Your task to perform on an android device: turn on location history Image 0: 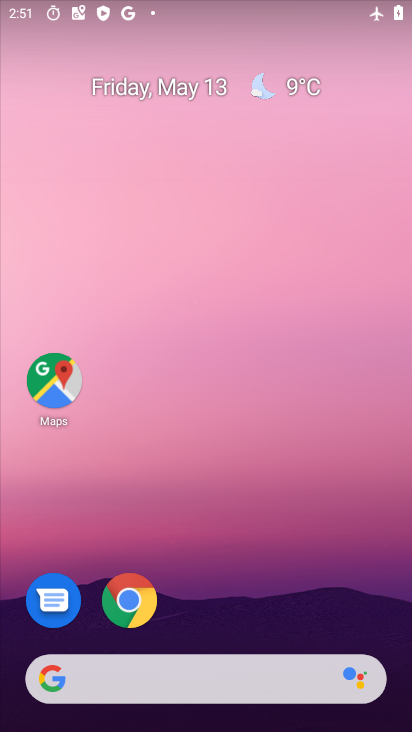
Step 0: drag from (199, 636) to (281, 186)
Your task to perform on an android device: turn on location history Image 1: 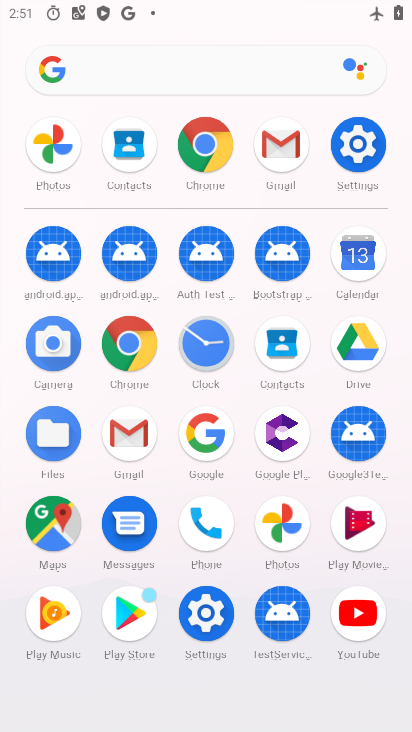
Step 1: click (208, 605)
Your task to perform on an android device: turn on location history Image 2: 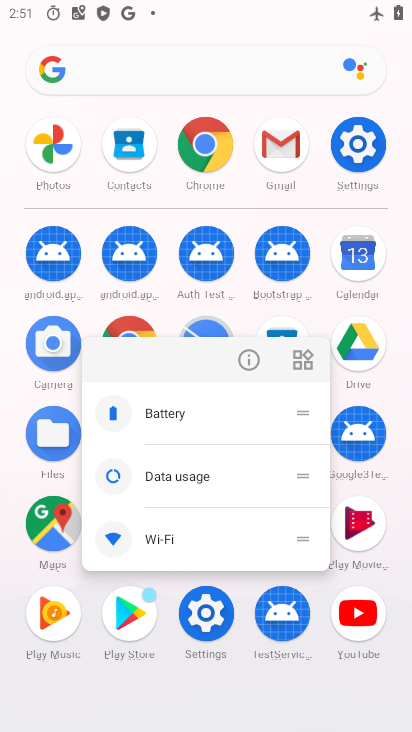
Step 2: click (251, 349)
Your task to perform on an android device: turn on location history Image 3: 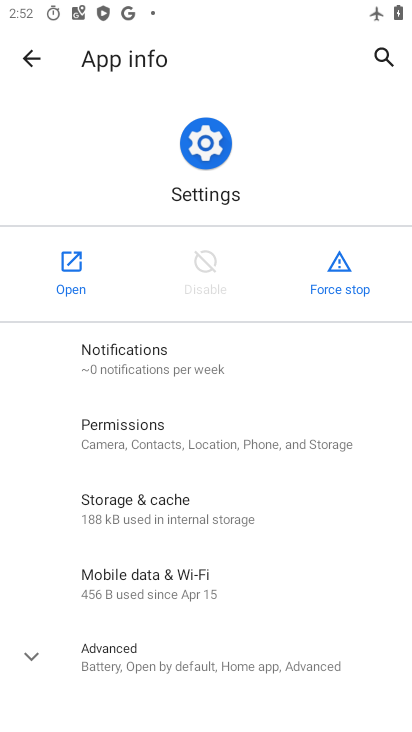
Step 3: click (85, 269)
Your task to perform on an android device: turn on location history Image 4: 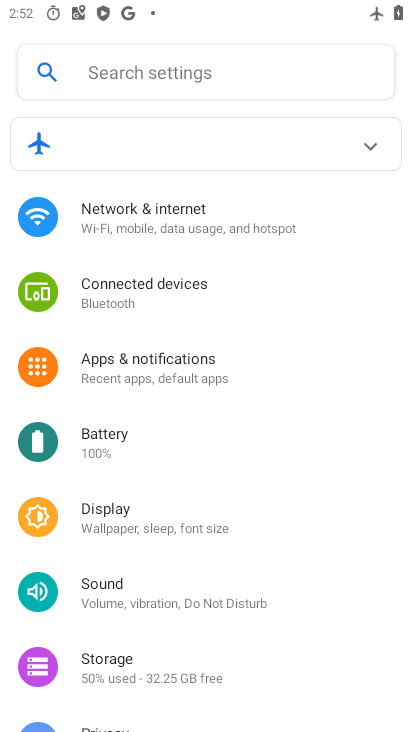
Step 4: drag from (191, 620) to (223, 340)
Your task to perform on an android device: turn on location history Image 5: 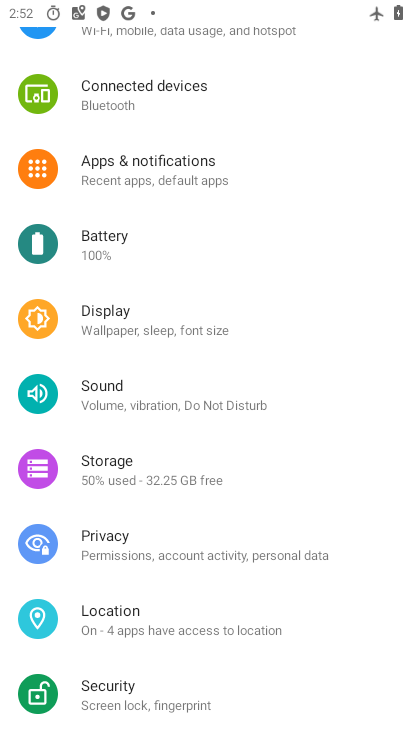
Step 5: click (146, 610)
Your task to perform on an android device: turn on location history Image 6: 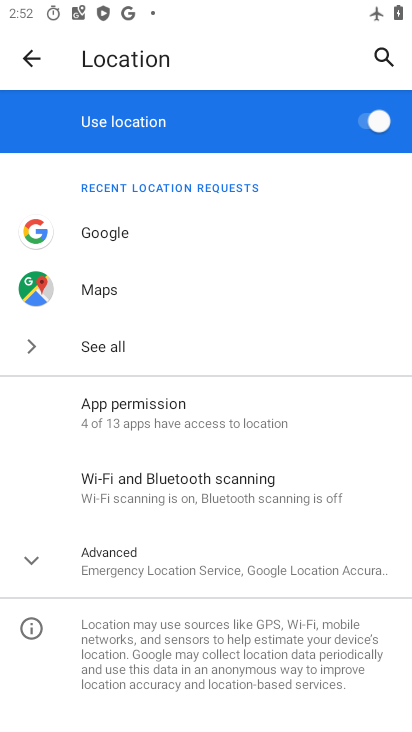
Step 6: click (165, 586)
Your task to perform on an android device: turn on location history Image 7: 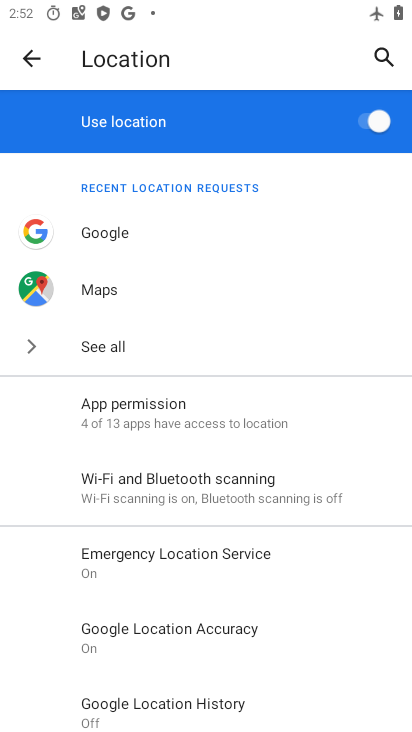
Step 7: drag from (240, 663) to (365, 212)
Your task to perform on an android device: turn on location history Image 8: 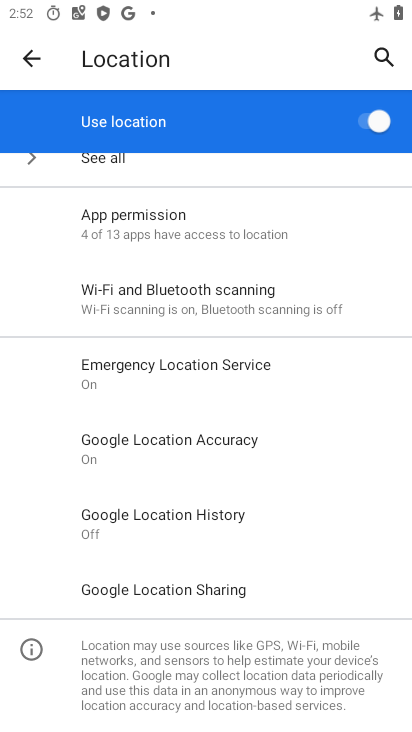
Step 8: click (222, 512)
Your task to perform on an android device: turn on location history Image 9: 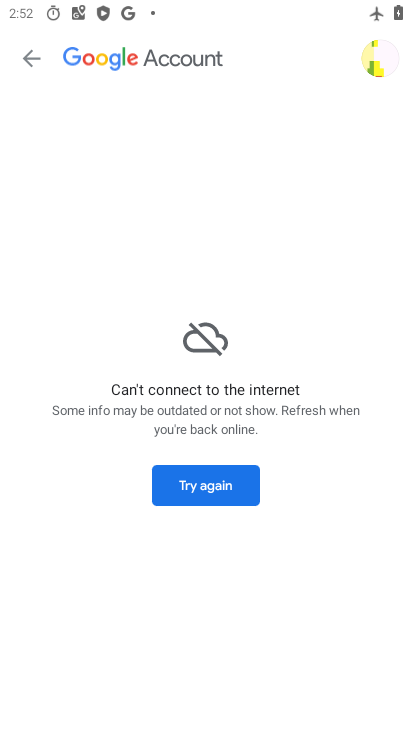
Step 9: click (240, 479)
Your task to perform on an android device: turn on location history Image 10: 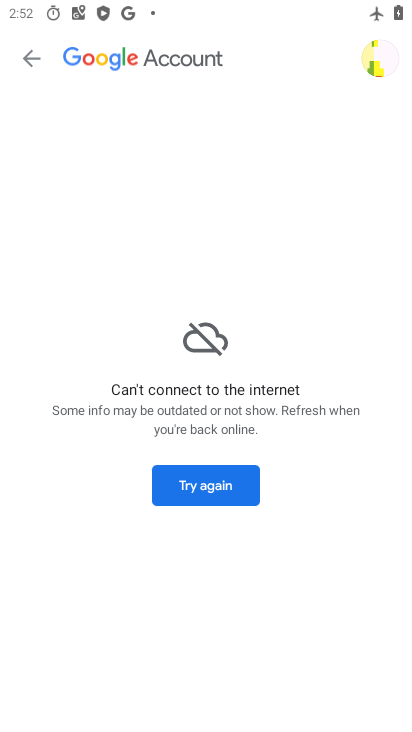
Step 10: drag from (266, 529) to (289, 305)
Your task to perform on an android device: turn on location history Image 11: 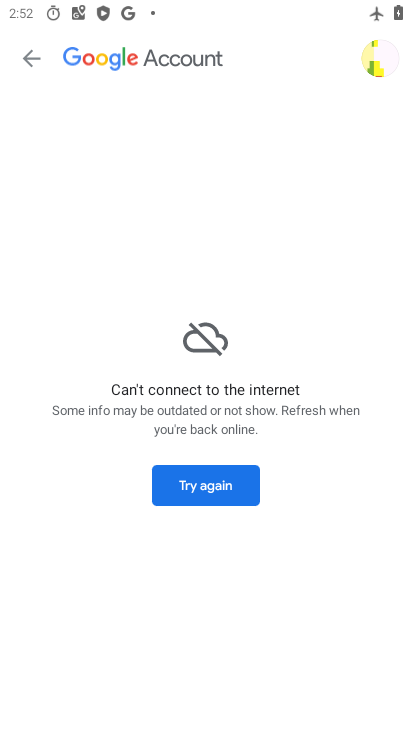
Step 11: click (296, 272)
Your task to perform on an android device: turn on location history Image 12: 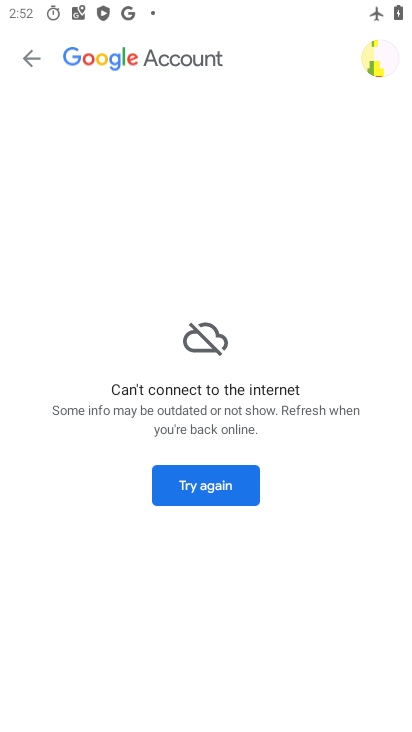
Step 12: click (136, 344)
Your task to perform on an android device: turn on location history Image 13: 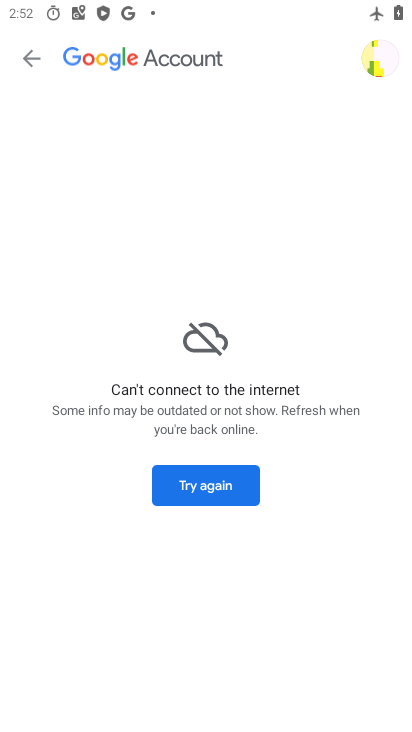
Step 13: click (197, 310)
Your task to perform on an android device: turn on location history Image 14: 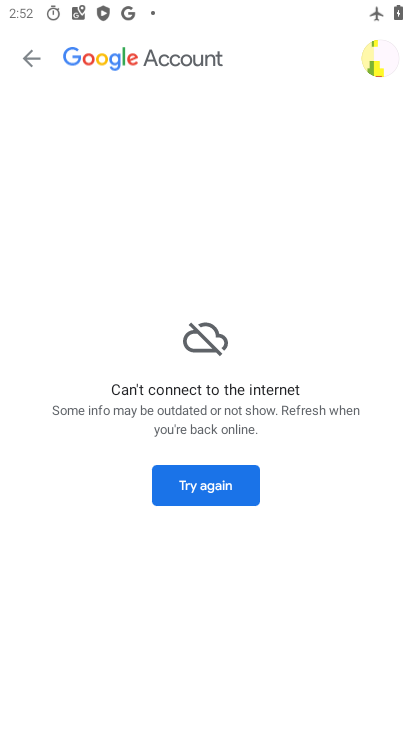
Step 14: click (197, 310)
Your task to perform on an android device: turn on location history Image 15: 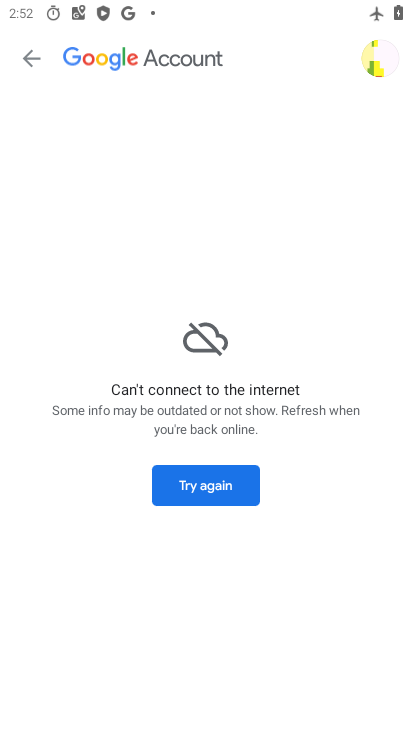
Step 15: click (197, 310)
Your task to perform on an android device: turn on location history Image 16: 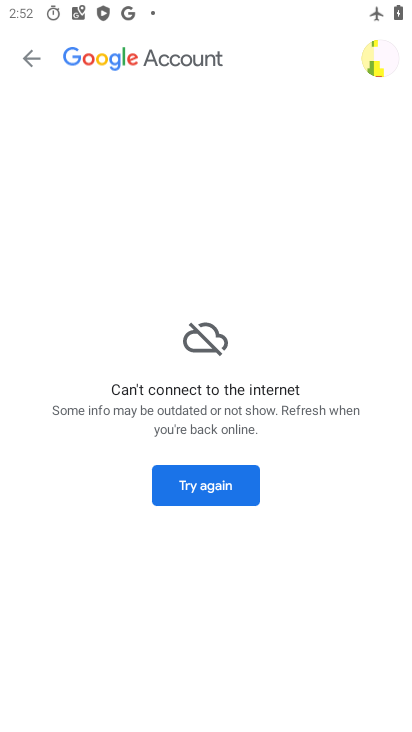
Step 16: click (205, 309)
Your task to perform on an android device: turn on location history Image 17: 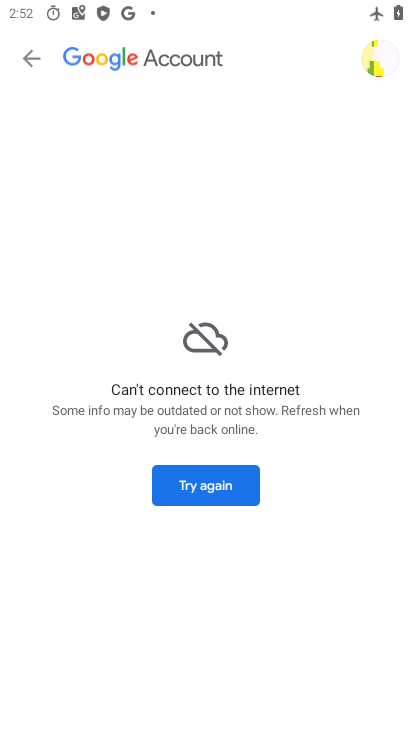
Step 17: click (205, 307)
Your task to perform on an android device: turn on location history Image 18: 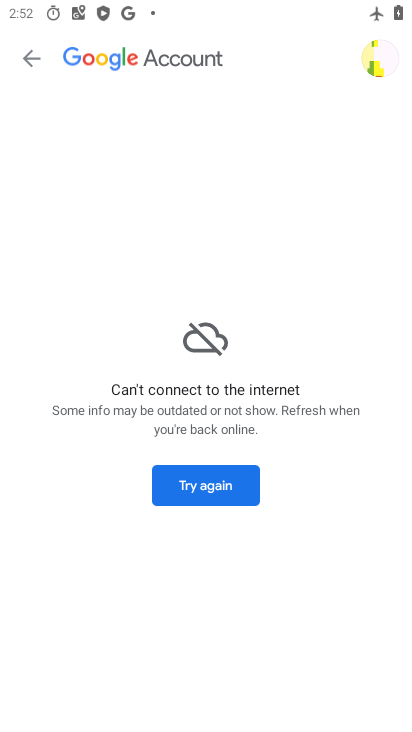
Step 18: click (205, 483)
Your task to perform on an android device: turn on location history Image 19: 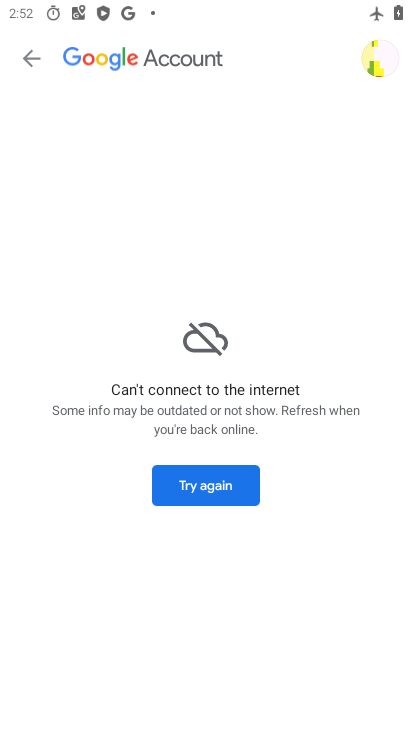
Step 19: task complete